Your task to perform on an android device: change text size in settings app Image 0: 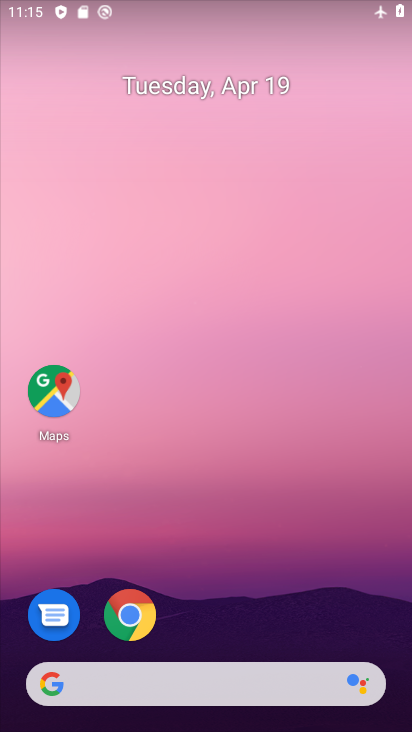
Step 0: click (245, 131)
Your task to perform on an android device: change text size in settings app Image 1: 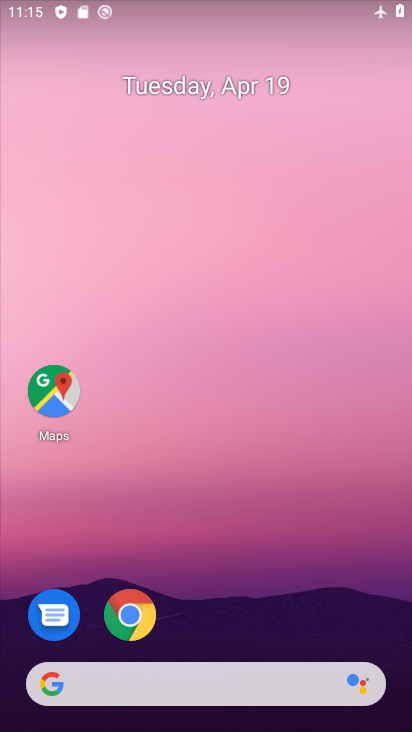
Step 1: drag from (213, 575) to (217, 141)
Your task to perform on an android device: change text size in settings app Image 2: 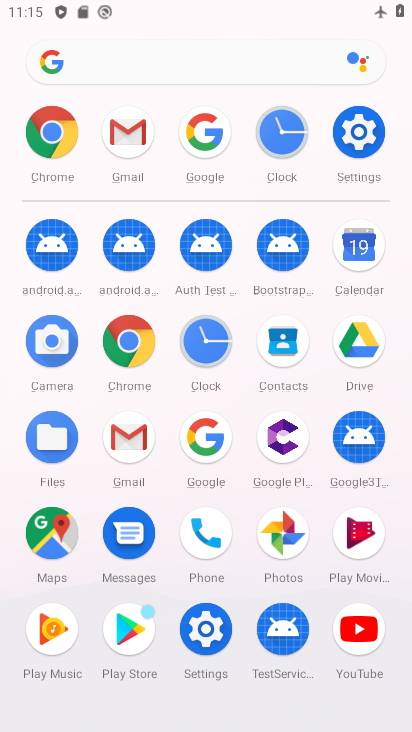
Step 2: click (368, 122)
Your task to perform on an android device: change text size in settings app Image 3: 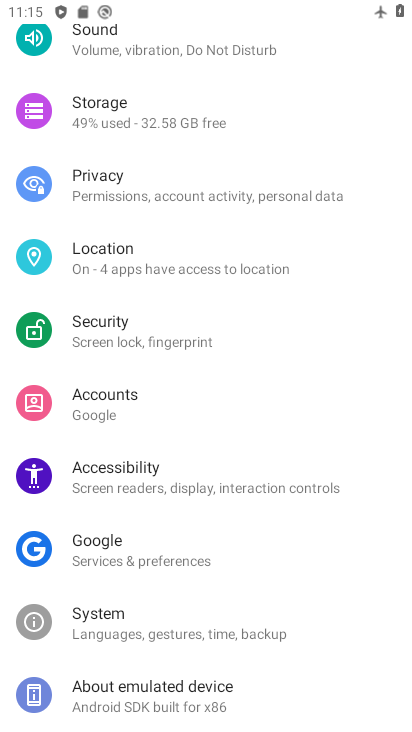
Step 3: drag from (169, 224) to (152, 531)
Your task to perform on an android device: change text size in settings app Image 4: 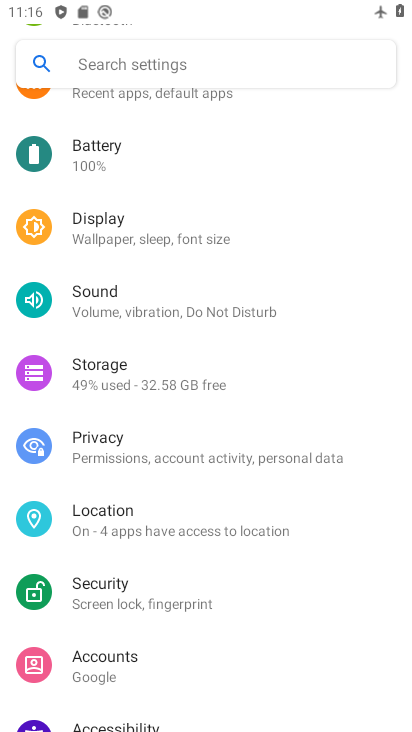
Step 4: drag from (201, 195) to (221, 507)
Your task to perform on an android device: change text size in settings app Image 5: 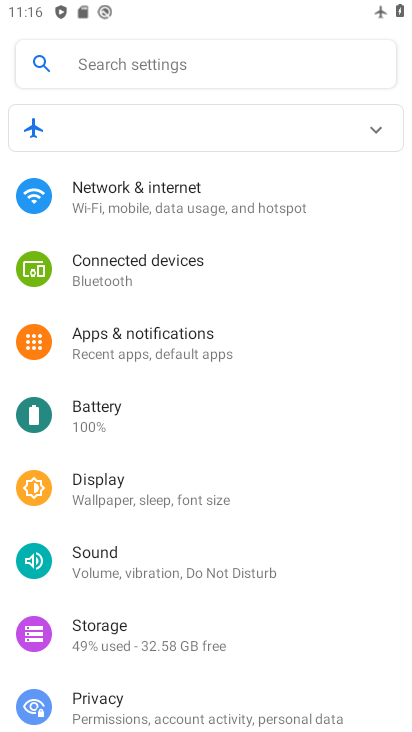
Step 5: click (185, 483)
Your task to perform on an android device: change text size in settings app Image 6: 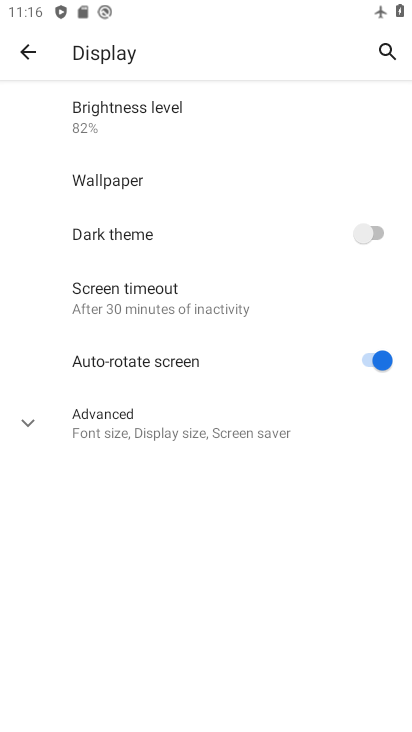
Step 6: click (133, 409)
Your task to perform on an android device: change text size in settings app Image 7: 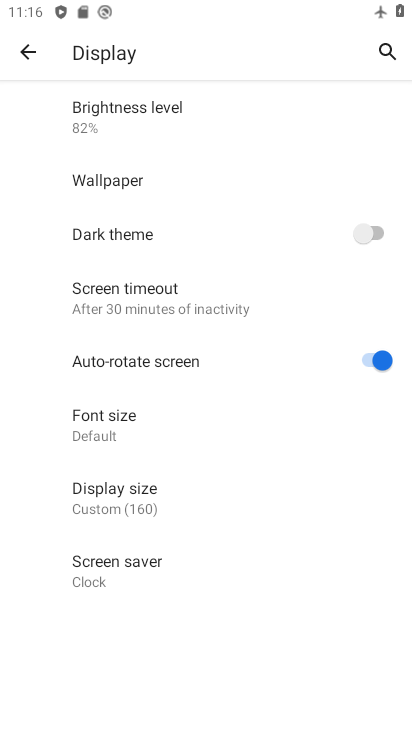
Step 7: click (102, 431)
Your task to perform on an android device: change text size in settings app Image 8: 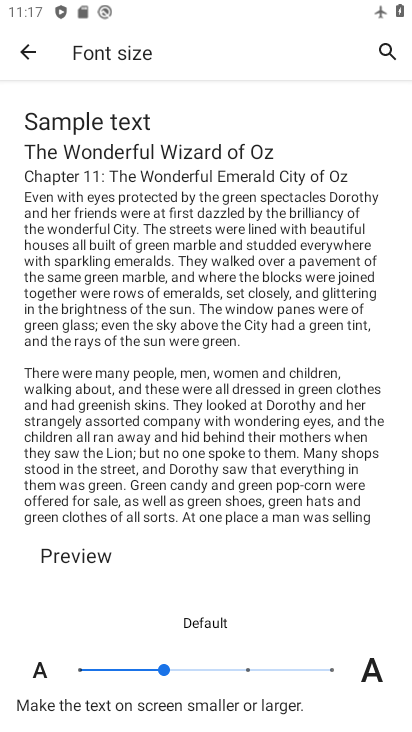
Step 8: click (78, 666)
Your task to perform on an android device: change text size in settings app Image 9: 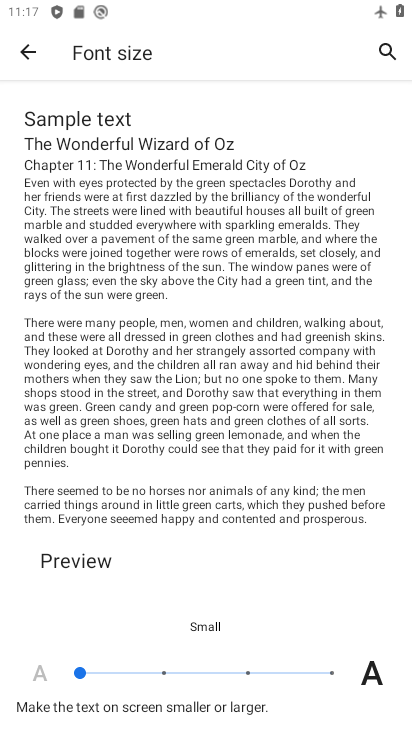
Step 9: task complete